Your task to perform on an android device: toggle notification dots Image 0: 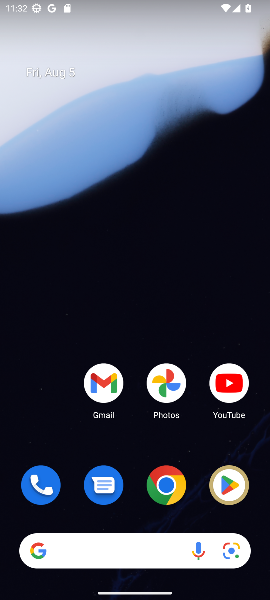
Step 0: drag from (157, 432) to (156, 65)
Your task to perform on an android device: toggle notification dots Image 1: 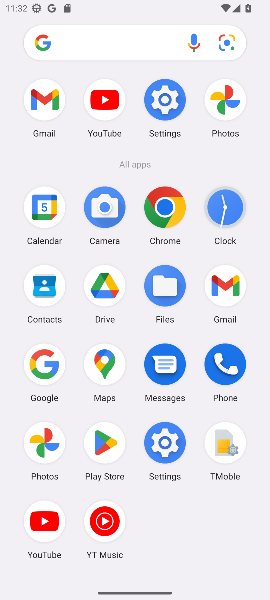
Step 1: click (167, 100)
Your task to perform on an android device: toggle notification dots Image 2: 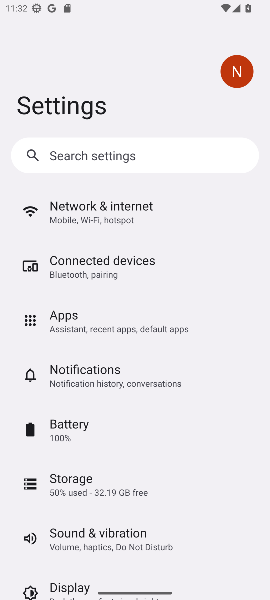
Step 2: click (85, 367)
Your task to perform on an android device: toggle notification dots Image 3: 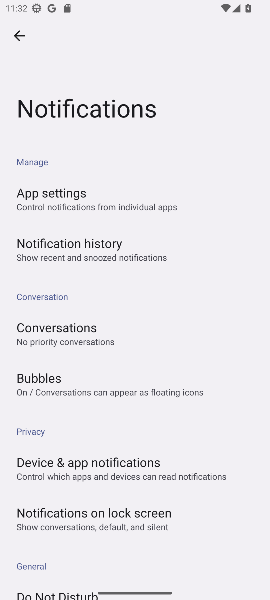
Step 3: drag from (122, 476) to (122, 277)
Your task to perform on an android device: toggle notification dots Image 4: 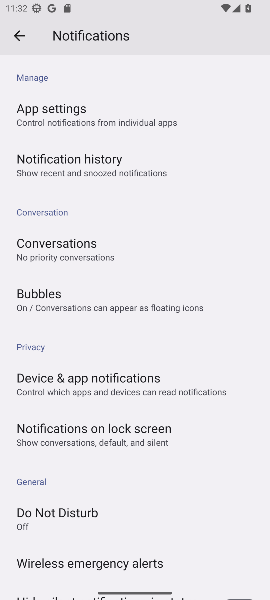
Step 4: drag from (135, 509) to (139, 300)
Your task to perform on an android device: toggle notification dots Image 5: 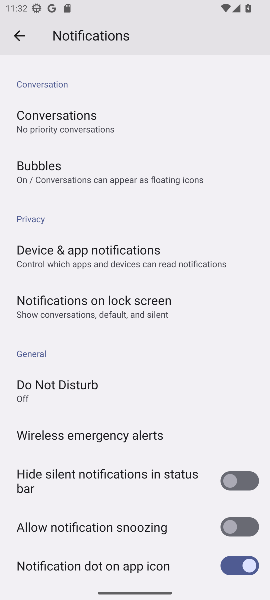
Step 5: click (240, 569)
Your task to perform on an android device: toggle notification dots Image 6: 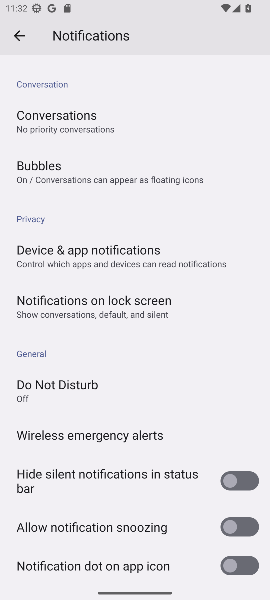
Step 6: task complete